Your task to perform on an android device: Show me recent news Image 0: 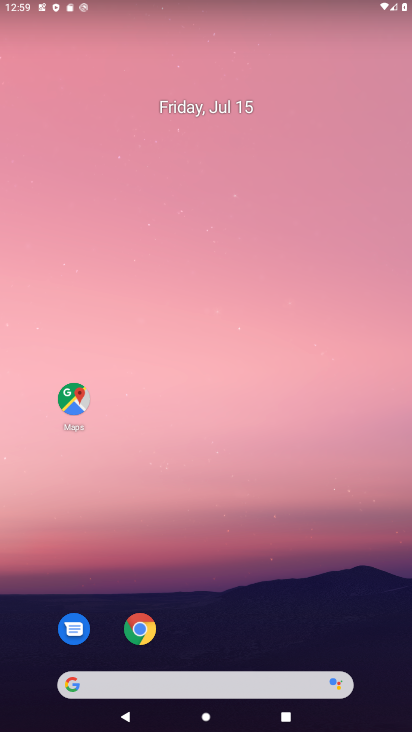
Step 0: drag from (285, 566) to (244, 47)
Your task to perform on an android device: Show me recent news Image 1: 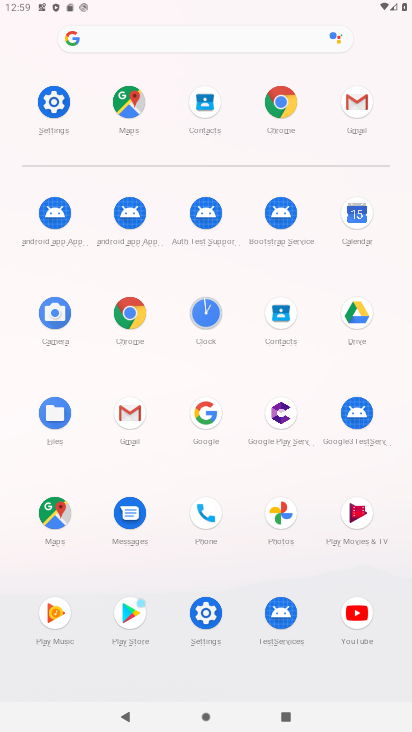
Step 1: click (279, 98)
Your task to perform on an android device: Show me recent news Image 2: 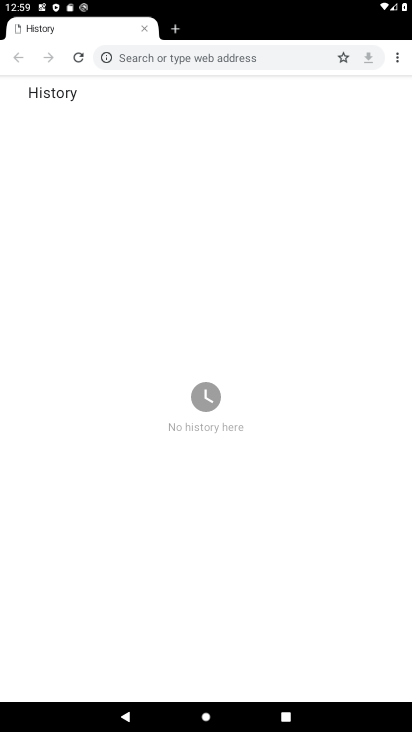
Step 2: click (148, 61)
Your task to perform on an android device: Show me recent news Image 3: 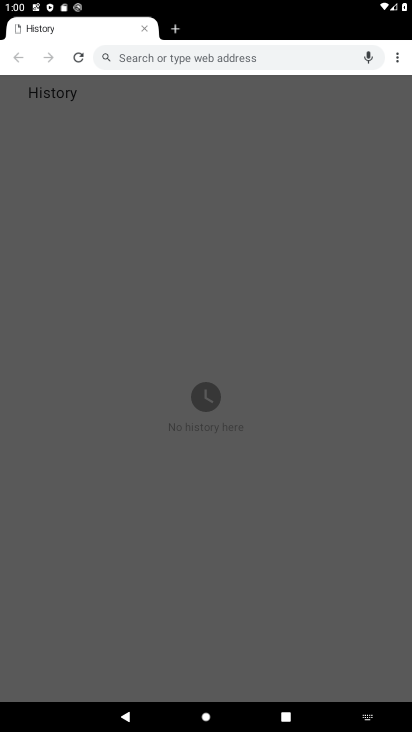
Step 3: type "news"
Your task to perform on an android device: Show me recent news Image 4: 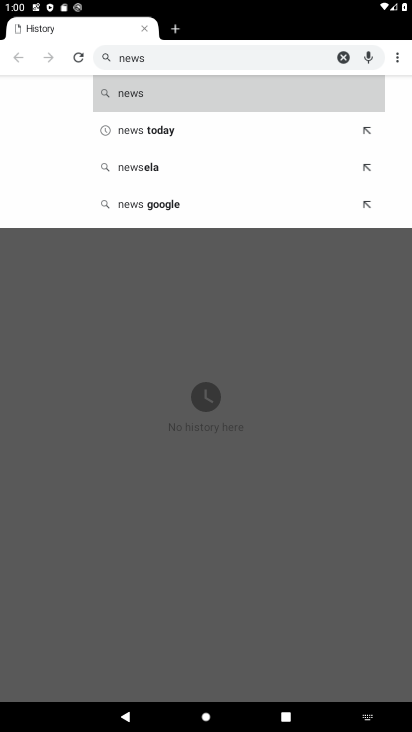
Step 4: click (128, 94)
Your task to perform on an android device: Show me recent news Image 5: 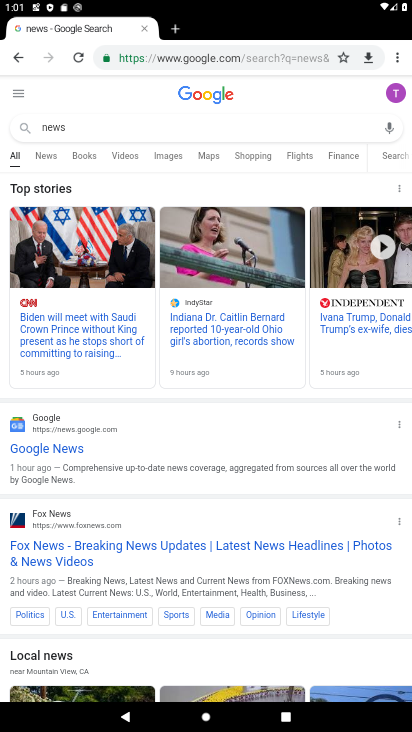
Step 5: click (70, 452)
Your task to perform on an android device: Show me recent news Image 6: 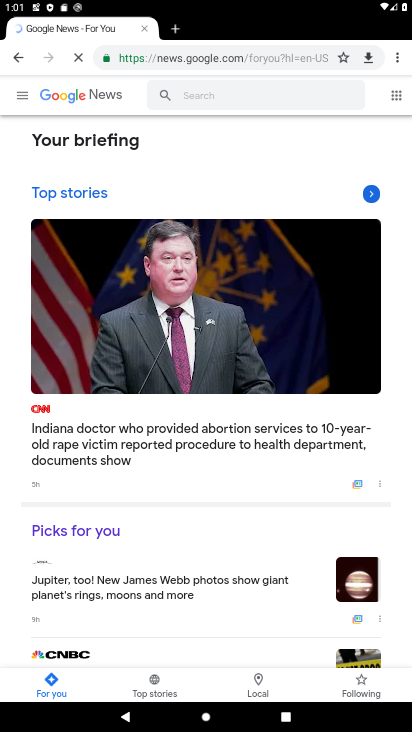
Step 6: task complete